Your task to perform on an android device: see creations saved in the google photos Image 0: 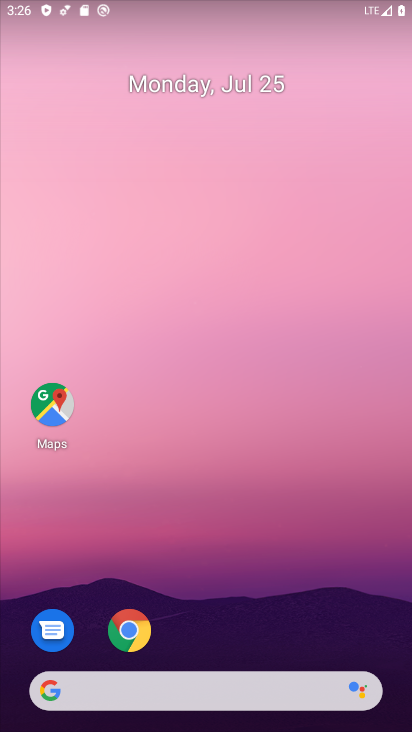
Step 0: drag from (214, 615) to (182, 0)
Your task to perform on an android device: see creations saved in the google photos Image 1: 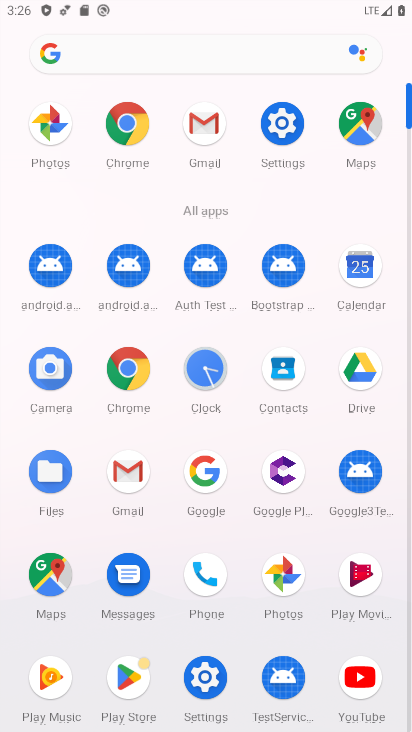
Step 1: click (286, 579)
Your task to perform on an android device: see creations saved in the google photos Image 2: 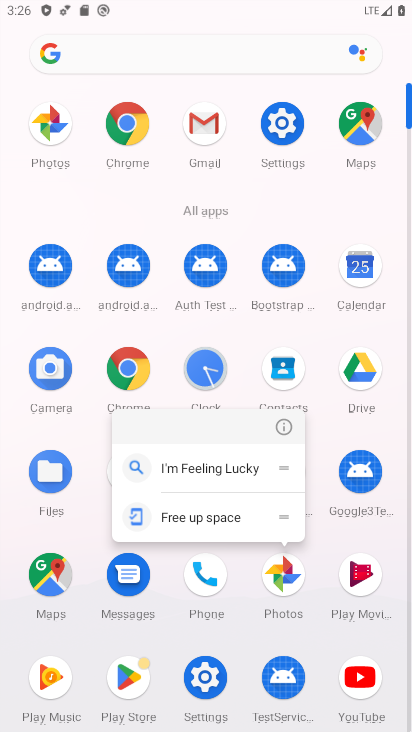
Step 2: click (282, 586)
Your task to perform on an android device: see creations saved in the google photos Image 3: 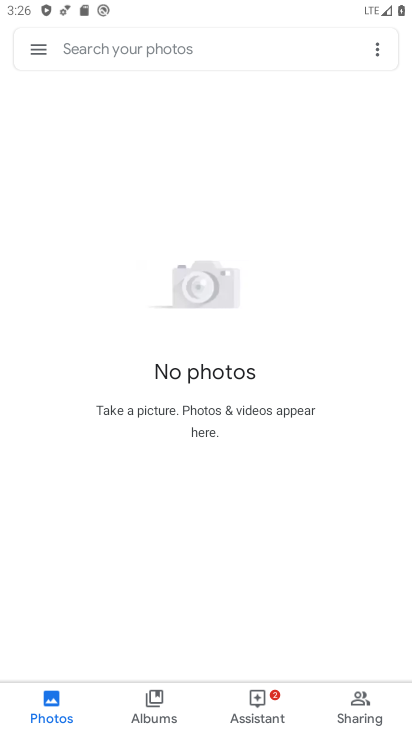
Step 3: click (174, 49)
Your task to perform on an android device: see creations saved in the google photos Image 4: 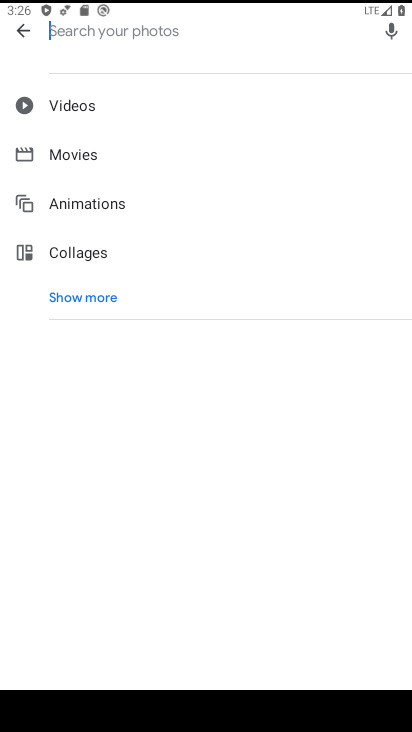
Step 4: type "creations"
Your task to perform on an android device: see creations saved in the google photos Image 5: 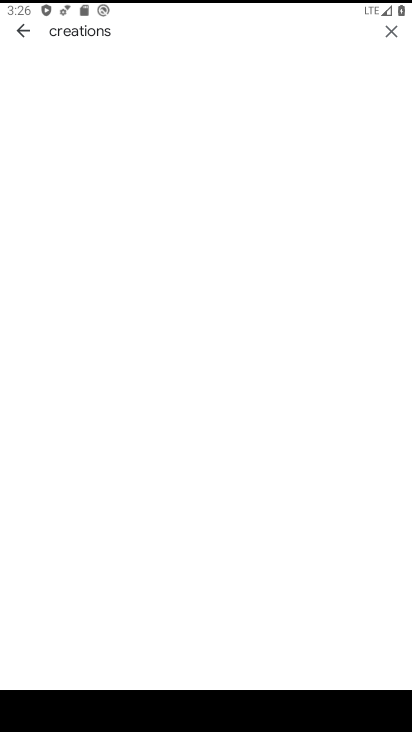
Step 5: task complete